Your task to perform on an android device: What's the weather going to be tomorrow? Image 0: 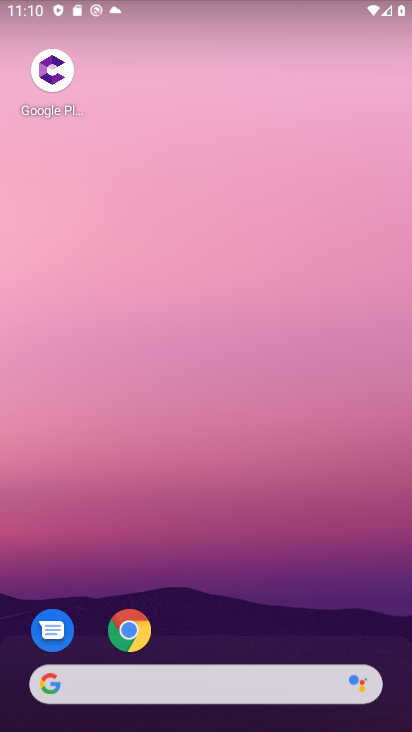
Step 0: click (184, 691)
Your task to perform on an android device: What's the weather going to be tomorrow? Image 1: 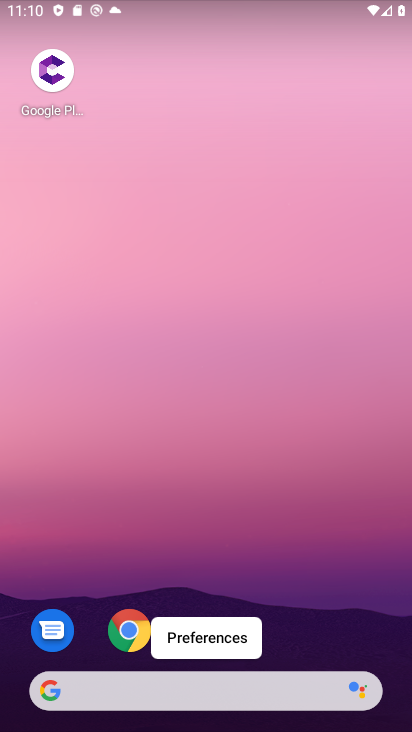
Step 1: click (184, 691)
Your task to perform on an android device: What's the weather going to be tomorrow? Image 2: 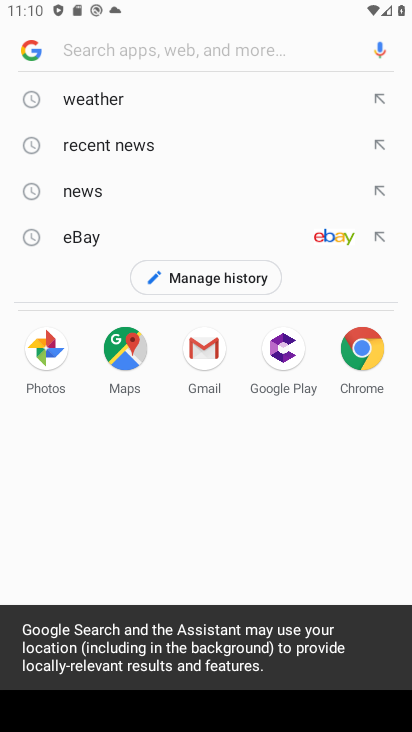
Step 2: click (144, 112)
Your task to perform on an android device: What's the weather going to be tomorrow? Image 3: 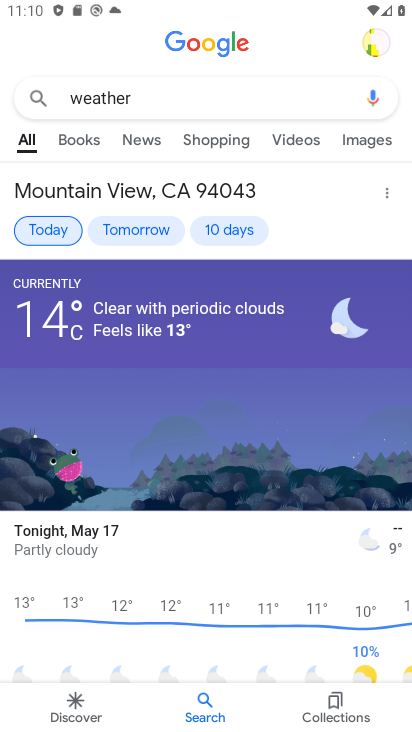
Step 3: click (150, 231)
Your task to perform on an android device: What's the weather going to be tomorrow? Image 4: 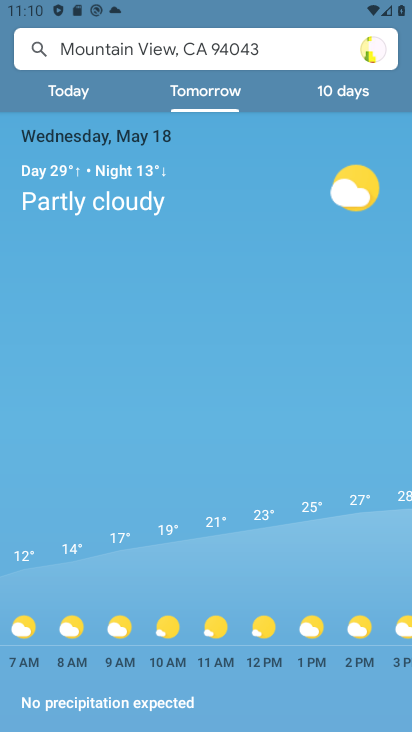
Step 4: task complete